Your task to perform on an android device: What's a good restaurant in Seattle? Image 0: 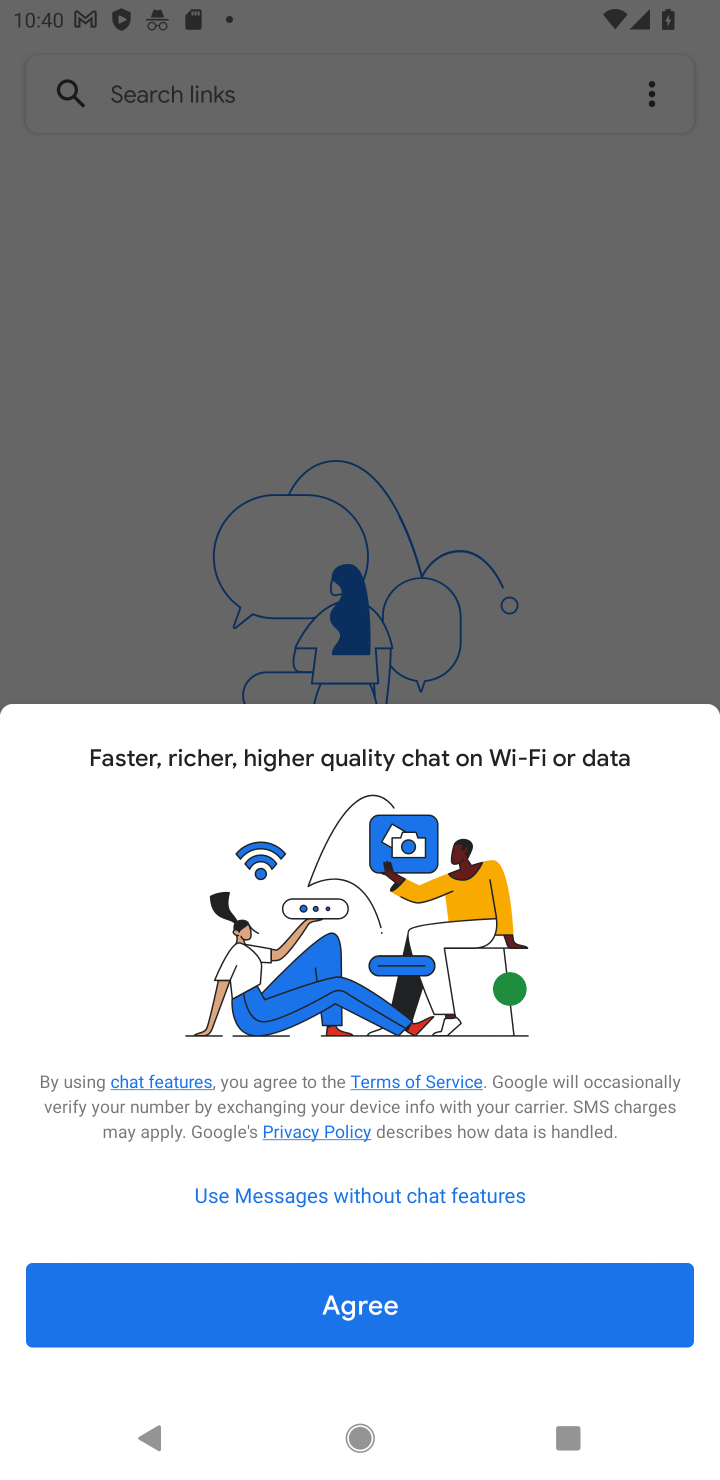
Step 0: task complete